Your task to perform on an android device: Search for Mexican restaurants on Maps Image 0: 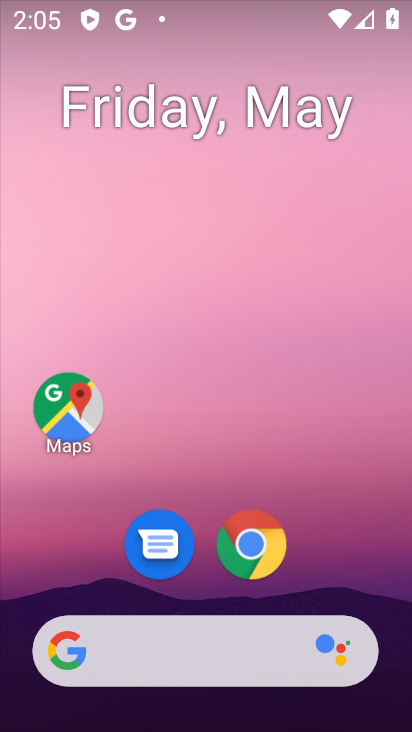
Step 0: click (84, 426)
Your task to perform on an android device: Search for Mexican restaurants on Maps Image 1: 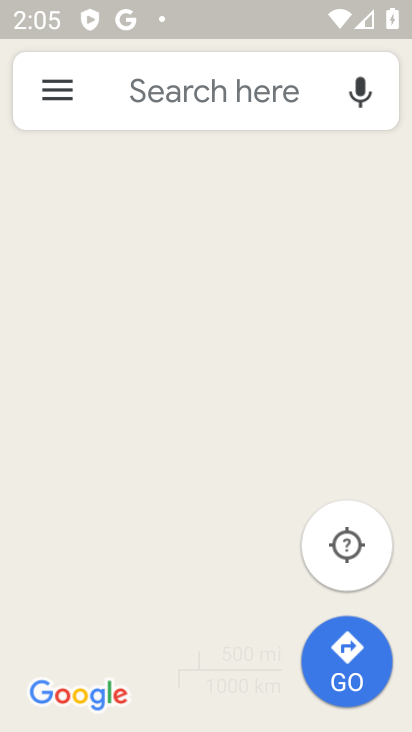
Step 1: click (275, 96)
Your task to perform on an android device: Search for Mexican restaurants on Maps Image 2: 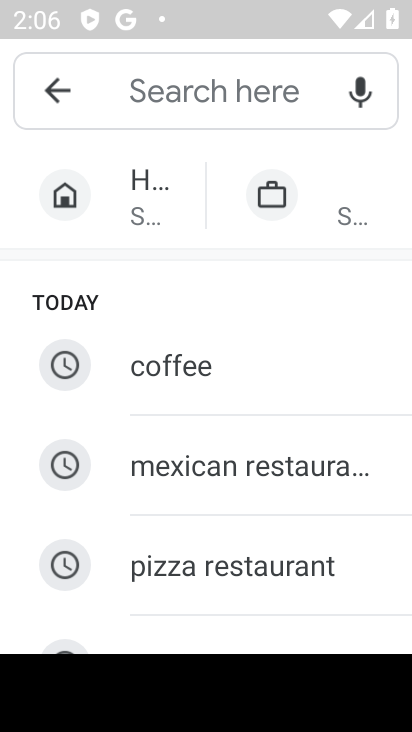
Step 2: click (276, 475)
Your task to perform on an android device: Search for Mexican restaurants on Maps Image 3: 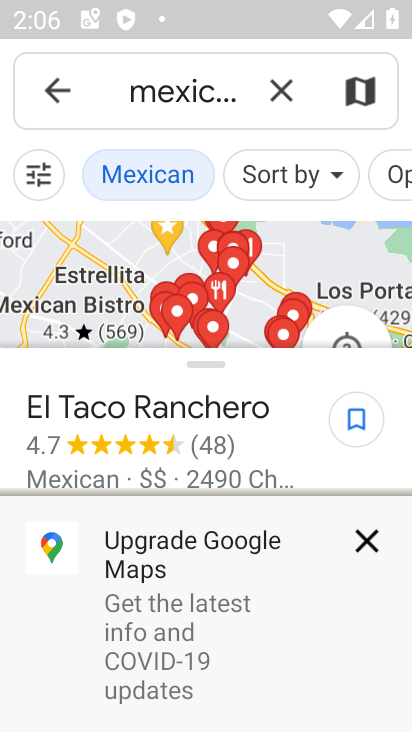
Step 3: task complete